Your task to perform on an android device: Go to Google Image 0: 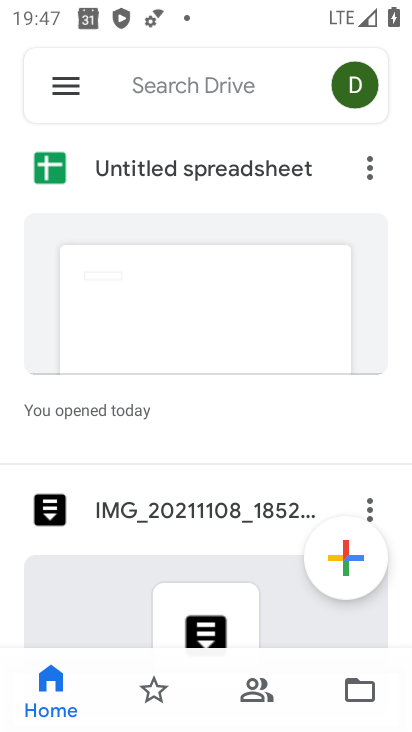
Step 0: press home button
Your task to perform on an android device: Go to Google Image 1: 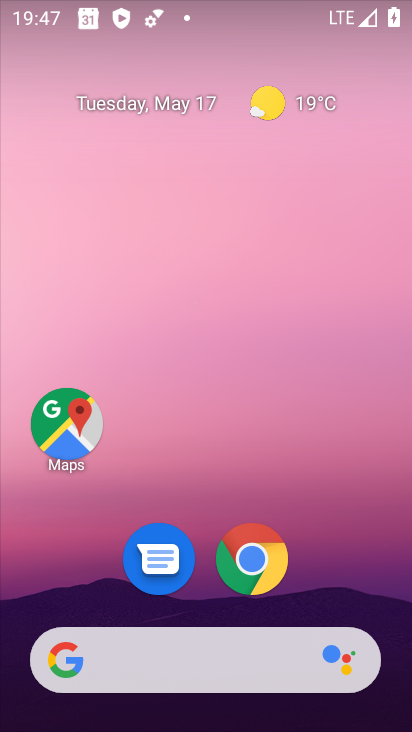
Step 1: drag from (217, 601) to (260, 174)
Your task to perform on an android device: Go to Google Image 2: 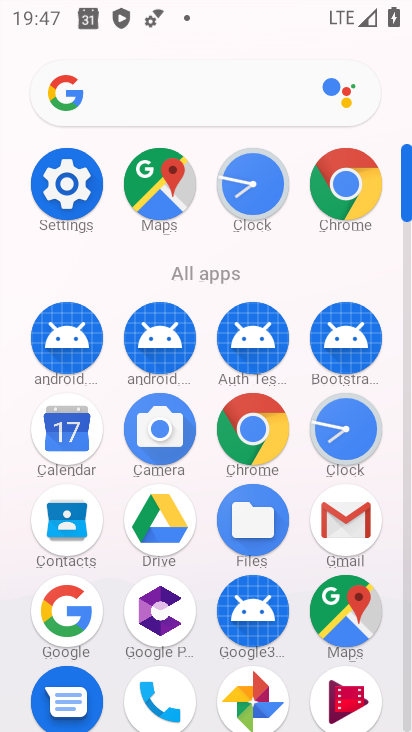
Step 2: click (69, 610)
Your task to perform on an android device: Go to Google Image 3: 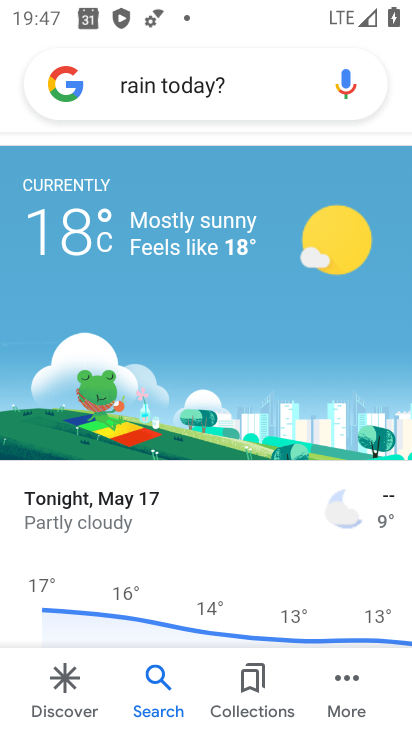
Step 3: task complete